Your task to perform on an android device: Go to Wikipedia Image 0: 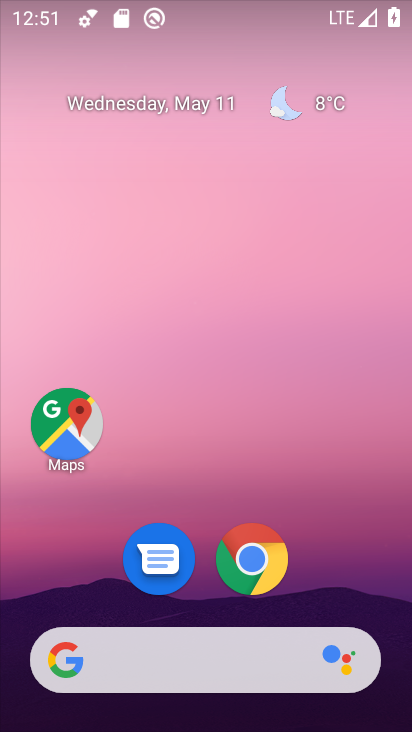
Step 0: click (251, 564)
Your task to perform on an android device: Go to Wikipedia Image 1: 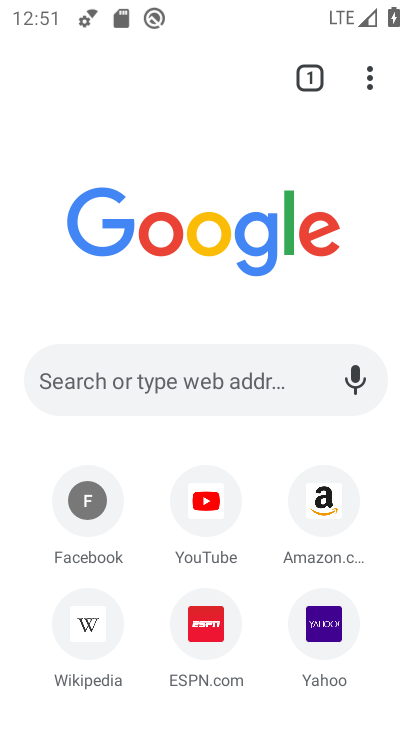
Step 1: click (84, 623)
Your task to perform on an android device: Go to Wikipedia Image 2: 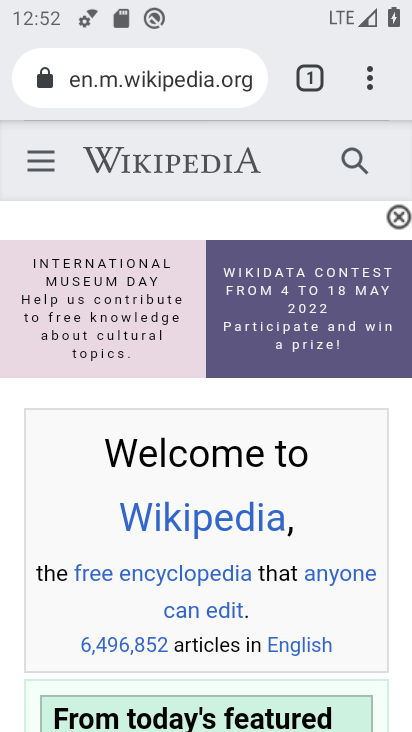
Step 2: task complete